Your task to perform on an android device: Open Google Maps and go to "Timeline" Image 0: 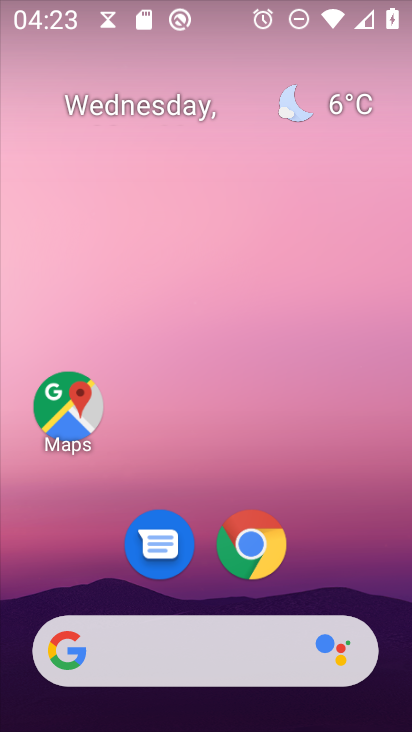
Step 0: drag from (318, 586) to (366, 71)
Your task to perform on an android device: Open Google Maps and go to "Timeline" Image 1: 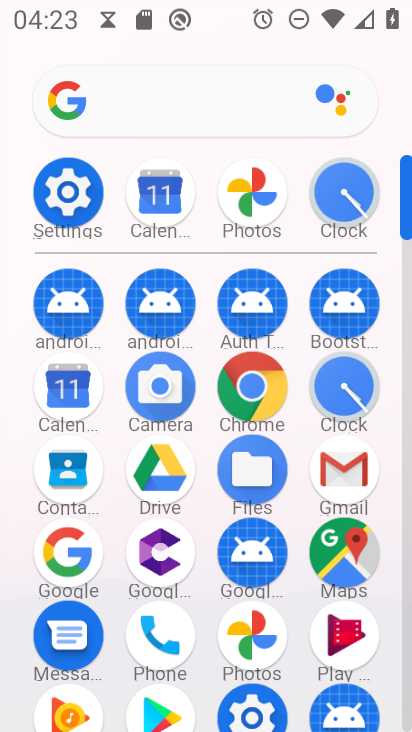
Step 1: click (347, 566)
Your task to perform on an android device: Open Google Maps and go to "Timeline" Image 2: 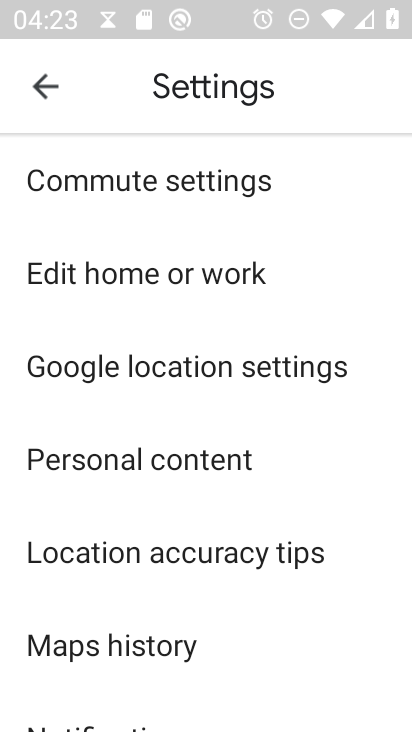
Step 2: click (45, 98)
Your task to perform on an android device: Open Google Maps and go to "Timeline" Image 3: 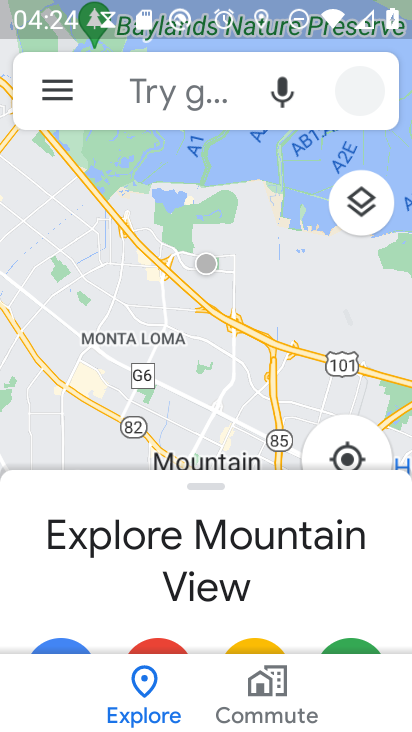
Step 3: click (48, 97)
Your task to perform on an android device: Open Google Maps and go to "Timeline" Image 4: 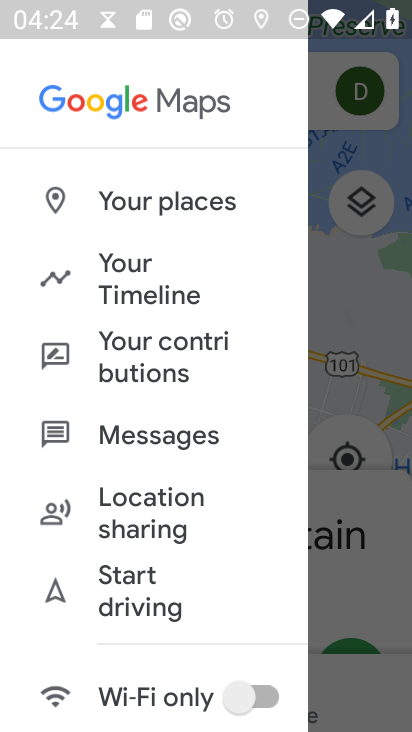
Step 4: click (166, 272)
Your task to perform on an android device: Open Google Maps and go to "Timeline" Image 5: 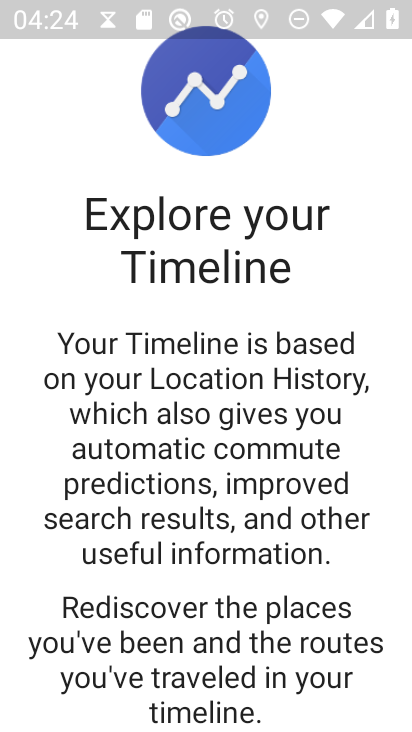
Step 5: drag from (285, 597) to (296, 286)
Your task to perform on an android device: Open Google Maps and go to "Timeline" Image 6: 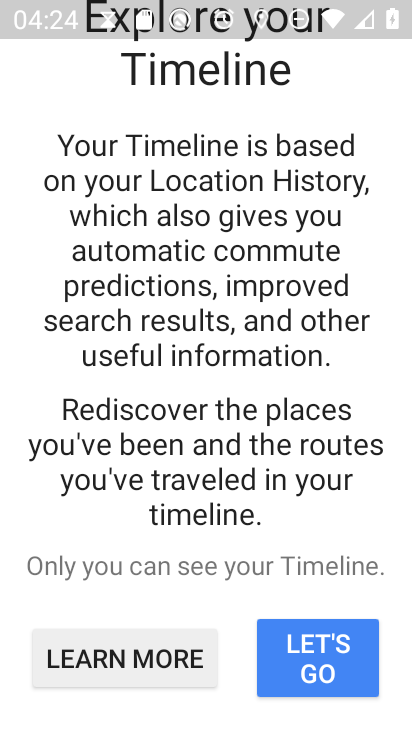
Step 6: click (282, 645)
Your task to perform on an android device: Open Google Maps and go to "Timeline" Image 7: 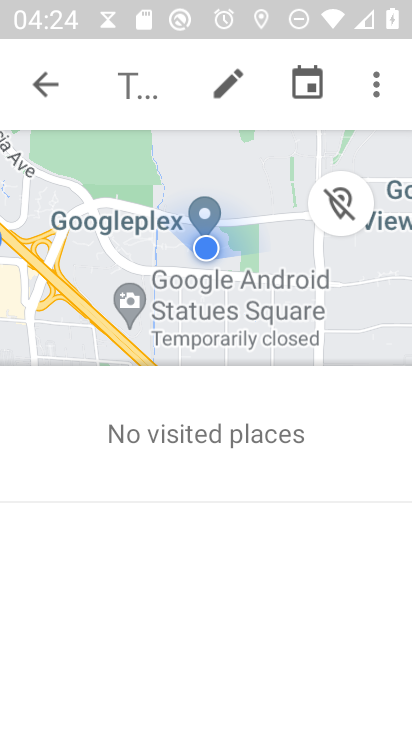
Step 7: task complete